Your task to perform on an android device: Search for pizza restaurants on Maps Image 0: 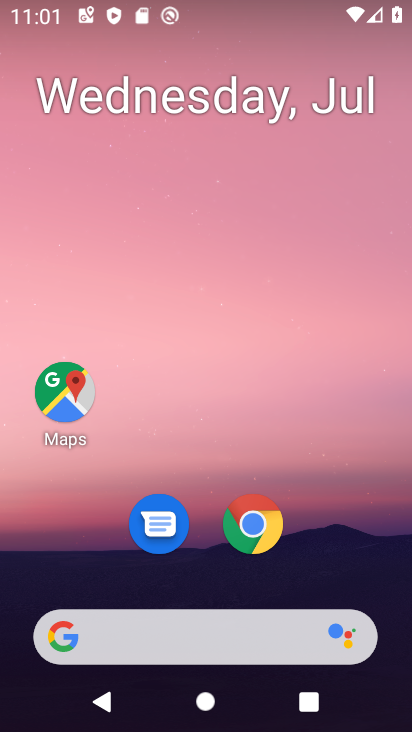
Step 0: press home button
Your task to perform on an android device: Search for pizza restaurants on Maps Image 1: 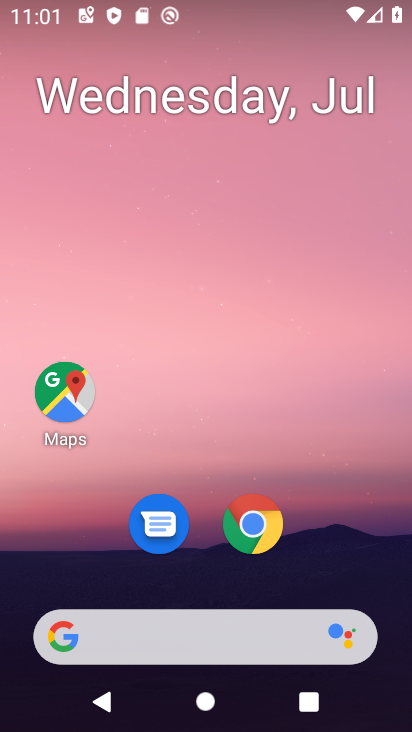
Step 1: click (64, 402)
Your task to perform on an android device: Search for pizza restaurants on Maps Image 2: 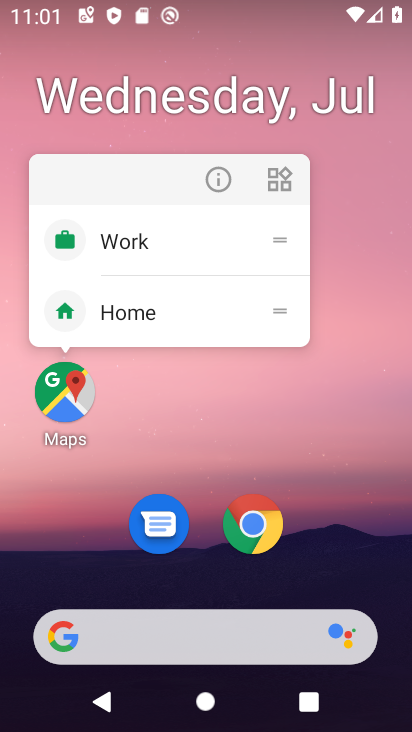
Step 2: click (64, 402)
Your task to perform on an android device: Search for pizza restaurants on Maps Image 3: 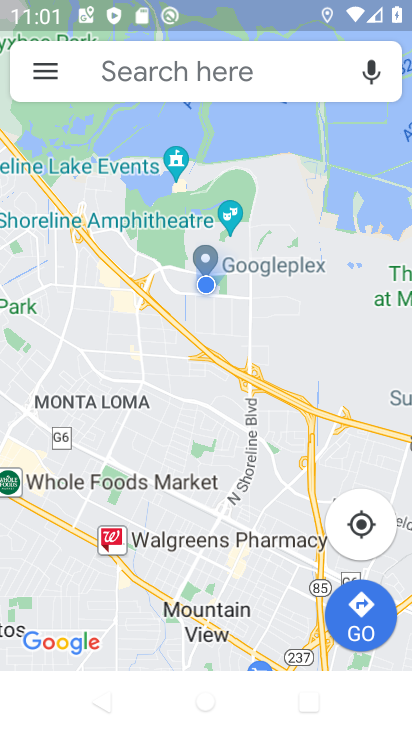
Step 3: click (145, 67)
Your task to perform on an android device: Search for pizza restaurants on Maps Image 4: 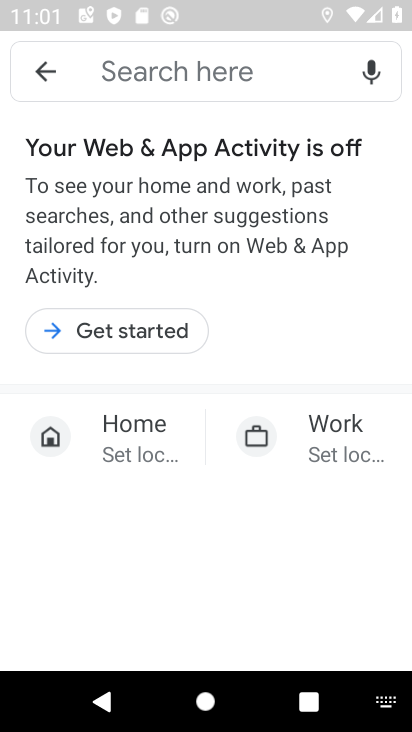
Step 4: type "pizza restaurants"
Your task to perform on an android device: Search for pizza restaurants on Maps Image 5: 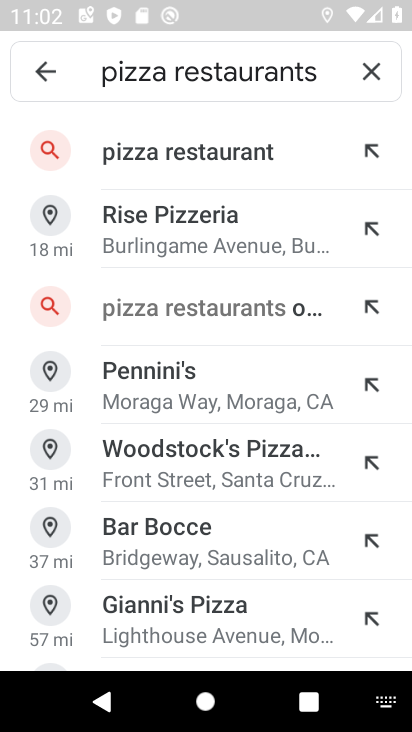
Step 5: click (224, 150)
Your task to perform on an android device: Search for pizza restaurants on Maps Image 6: 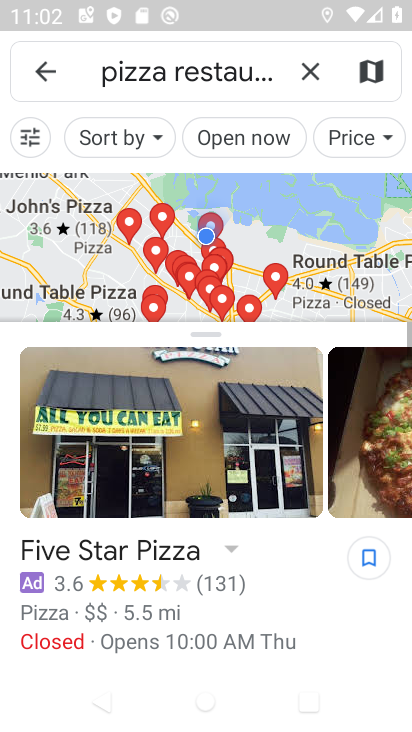
Step 6: task complete